Your task to perform on an android device: read, delete, or share a saved page in the chrome app Image 0: 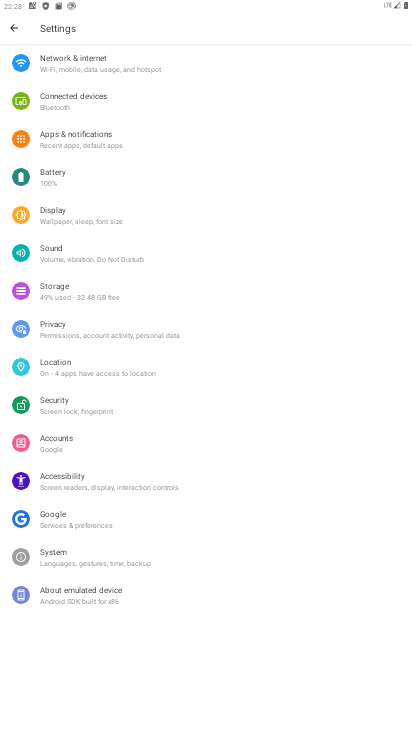
Step 0: press home button
Your task to perform on an android device: read, delete, or share a saved page in the chrome app Image 1: 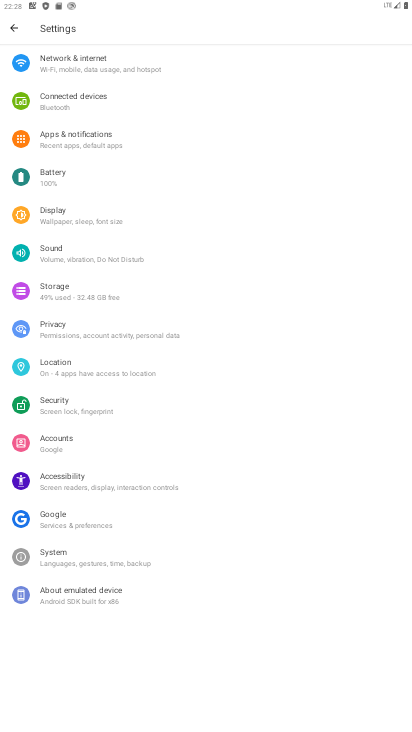
Step 1: press home button
Your task to perform on an android device: read, delete, or share a saved page in the chrome app Image 2: 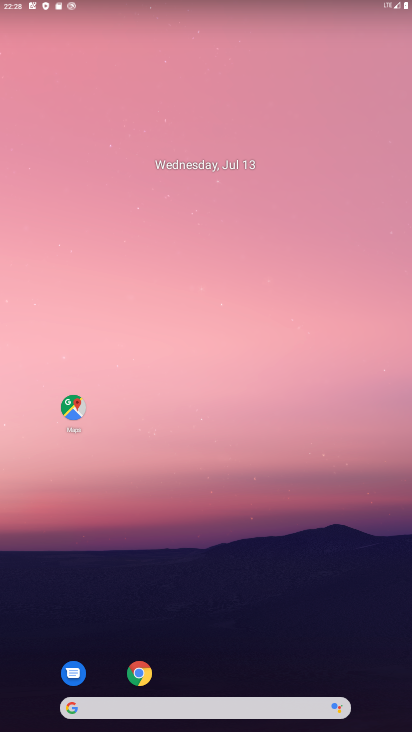
Step 2: drag from (190, 671) to (237, 191)
Your task to perform on an android device: read, delete, or share a saved page in the chrome app Image 3: 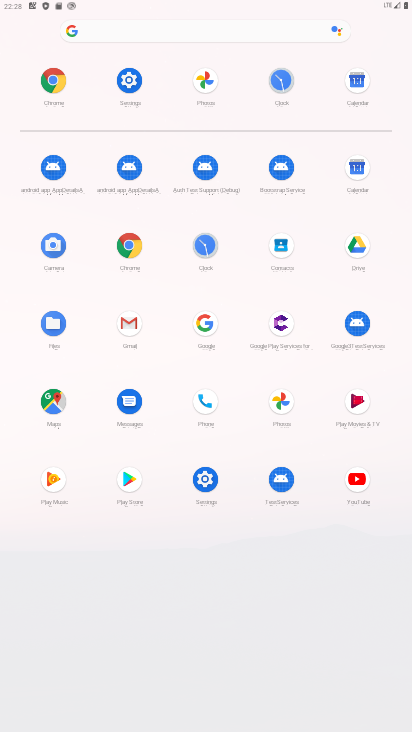
Step 3: click (119, 244)
Your task to perform on an android device: read, delete, or share a saved page in the chrome app Image 4: 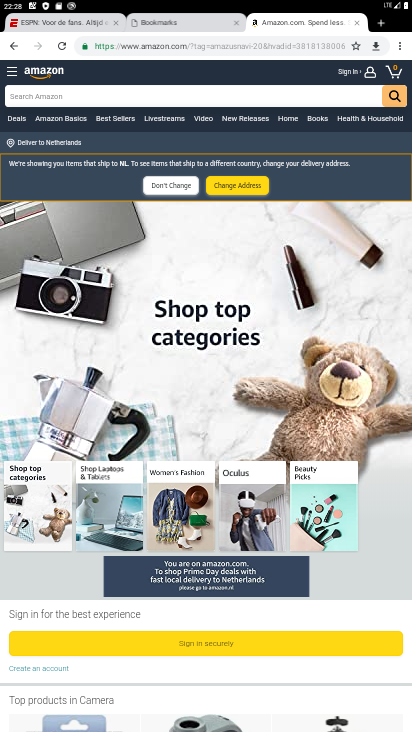
Step 4: drag from (256, 592) to (313, 292)
Your task to perform on an android device: read, delete, or share a saved page in the chrome app Image 5: 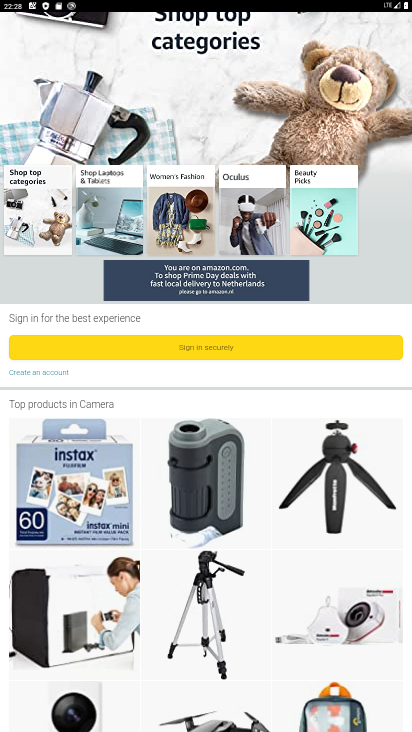
Step 5: drag from (375, 55) to (340, 499)
Your task to perform on an android device: read, delete, or share a saved page in the chrome app Image 6: 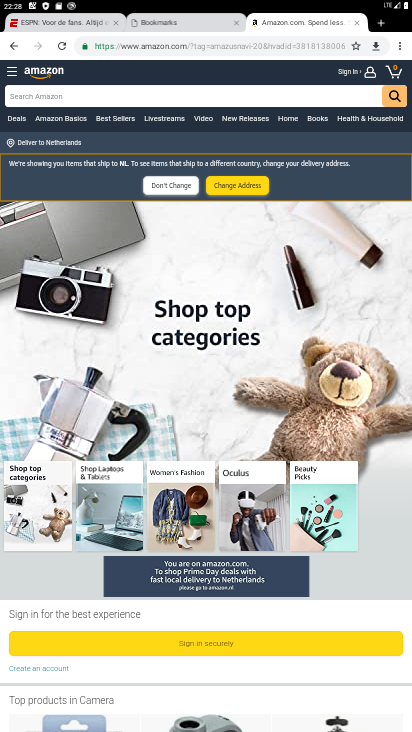
Step 6: click (399, 46)
Your task to perform on an android device: read, delete, or share a saved page in the chrome app Image 7: 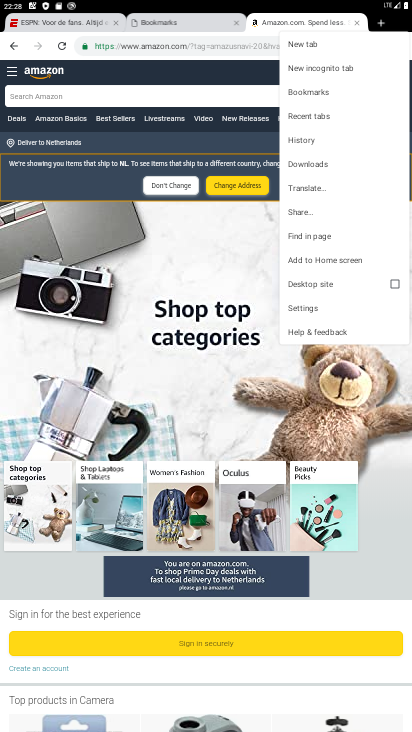
Step 7: click (318, 93)
Your task to perform on an android device: read, delete, or share a saved page in the chrome app Image 8: 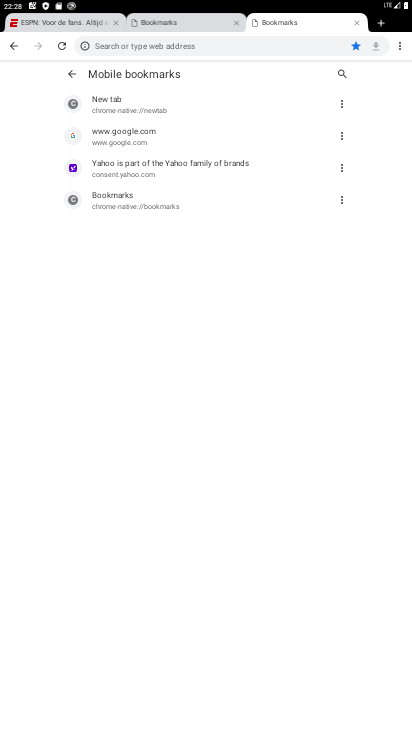
Step 8: drag from (200, 337) to (218, 135)
Your task to perform on an android device: read, delete, or share a saved page in the chrome app Image 9: 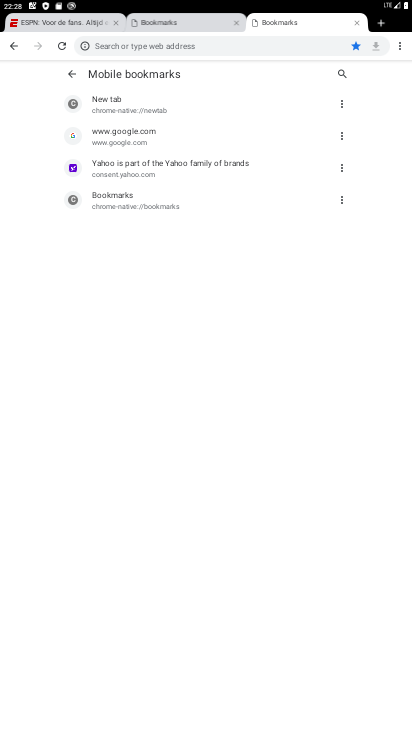
Step 9: drag from (191, 331) to (201, 203)
Your task to perform on an android device: read, delete, or share a saved page in the chrome app Image 10: 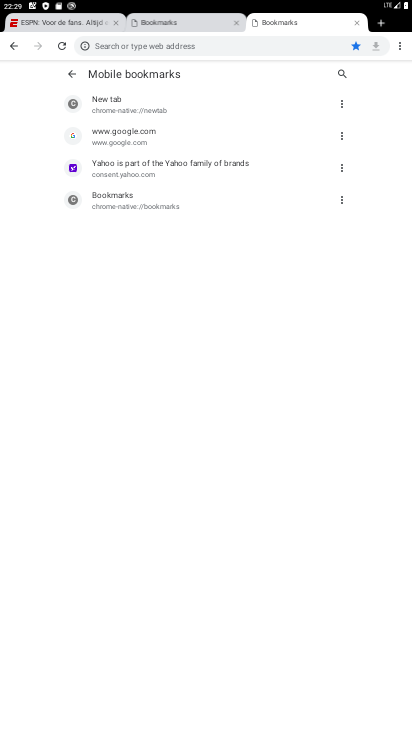
Step 10: click (115, 144)
Your task to perform on an android device: read, delete, or share a saved page in the chrome app Image 11: 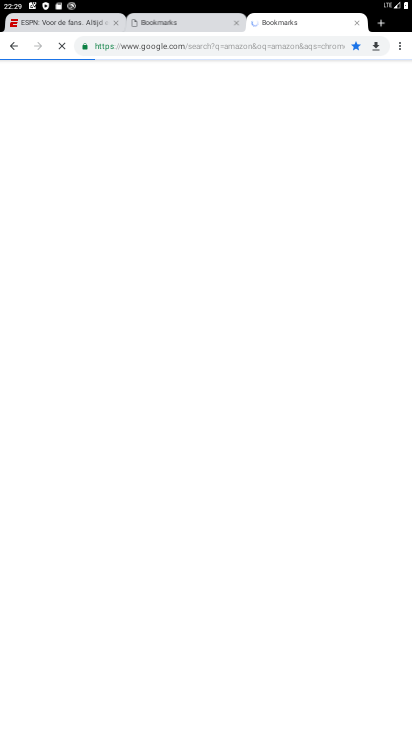
Step 11: task complete